Your task to perform on an android device: Is it going to rain tomorrow? Image 0: 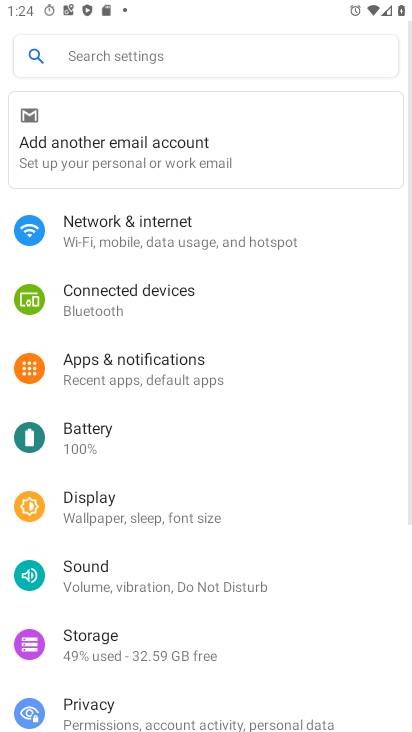
Step 0: press home button
Your task to perform on an android device: Is it going to rain tomorrow? Image 1: 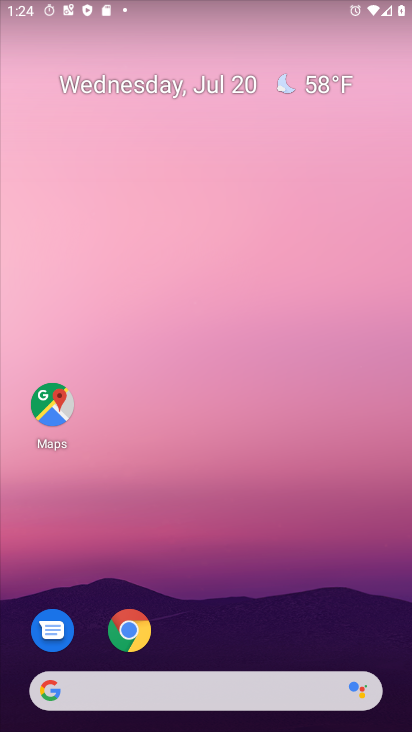
Step 1: click (156, 689)
Your task to perform on an android device: Is it going to rain tomorrow? Image 2: 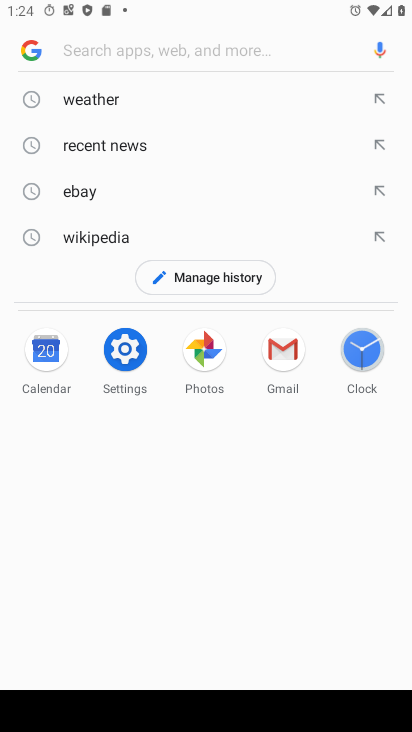
Step 2: click (97, 96)
Your task to perform on an android device: Is it going to rain tomorrow? Image 3: 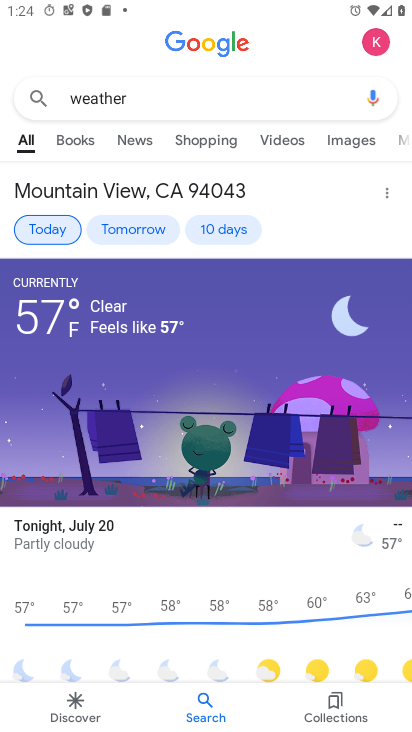
Step 3: click (135, 227)
Your task to perform on an android device: Is it going to rain tomorrow? Image 4: 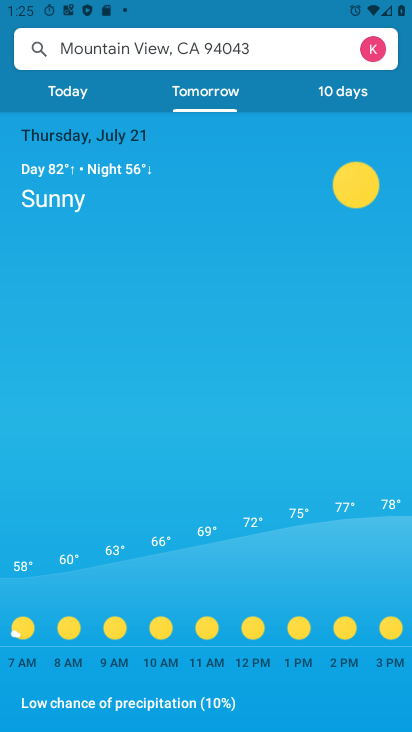
Step 4: task complete